Your task to perform on an android device: Open maps Image 0: 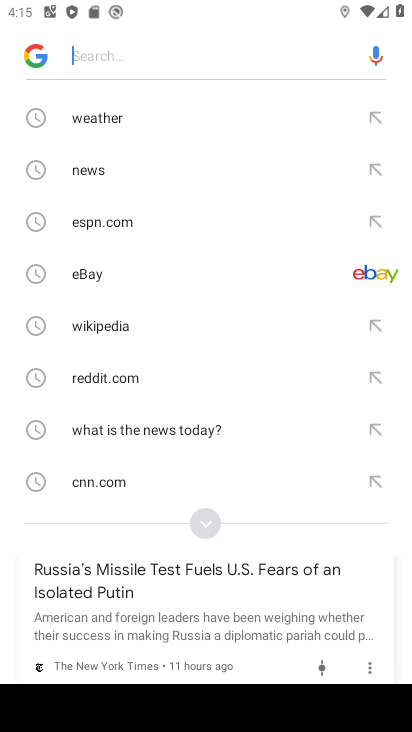
Step 0: press home button
Your task to perform on an android device: Open maps Image 1: 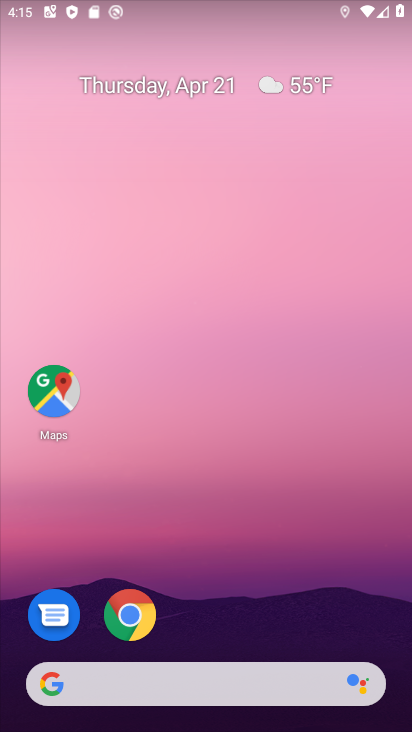
Step 1: click (62, 390)
Your task to perform on an android device: Open maps Image 2: 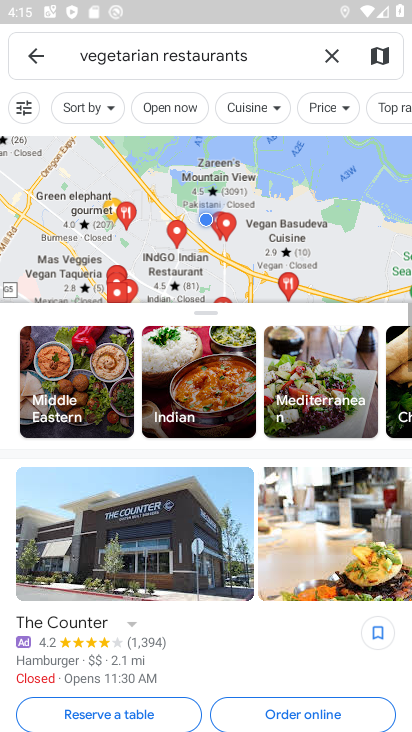
Step 2: click (328, 58)
Your task to perform on an android device: Open maps Image 3: 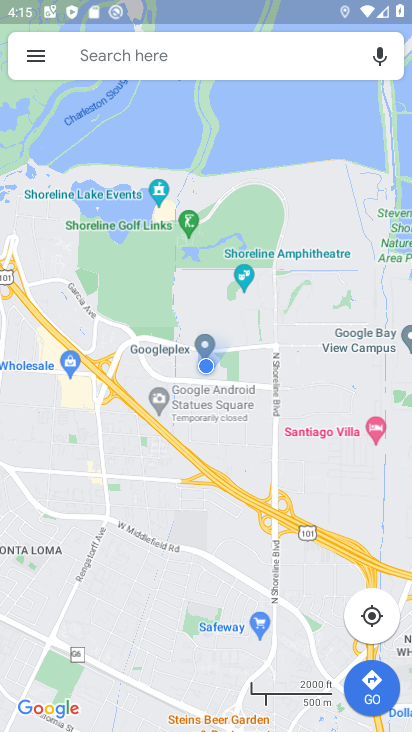
Step 3: task complete